Your task to perform on an android device: Do I have any events today? Image 0: 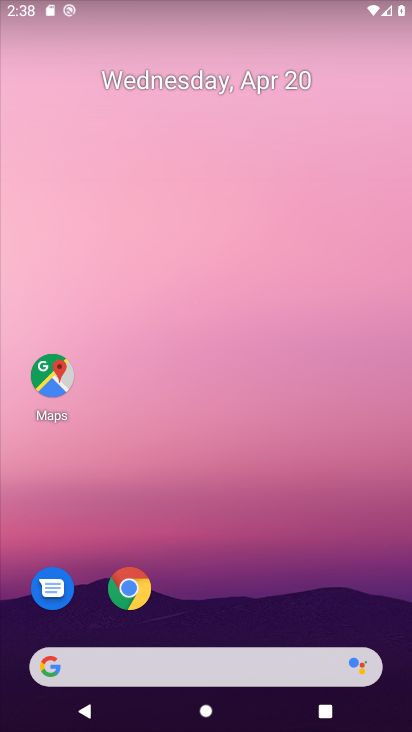
Step 0: drag from (342, 587) to (333, 198)
Your task to perform on an android device: Do I have any events today? Image 1: 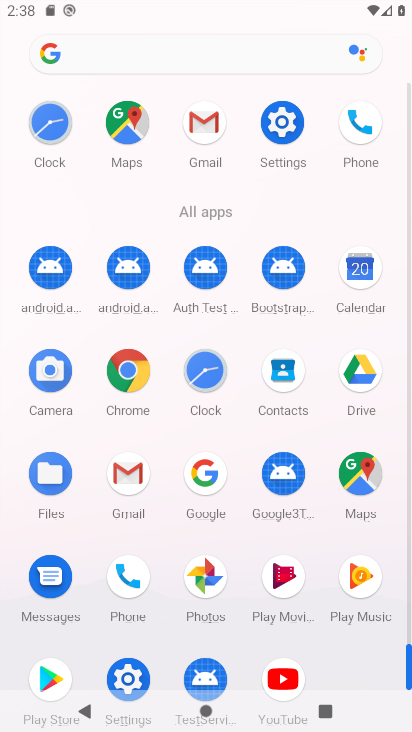
Step 1: click (362, 275)
Your task to perform on an android device: Do I have any events today? Image 2: 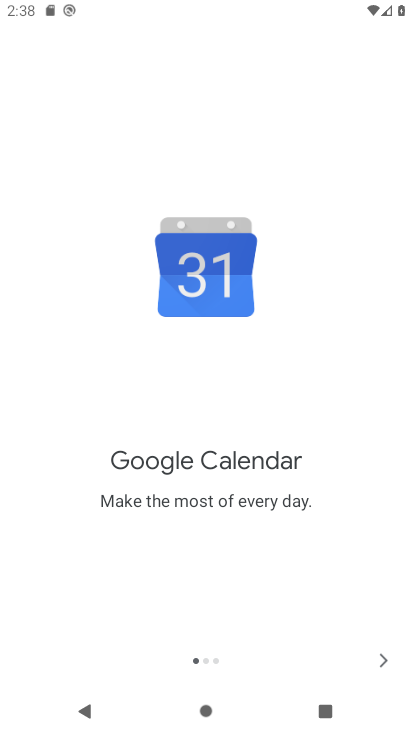
Step 2: click (377, 664)
Your task to perform on an android device: Do I have any events today? Image 3: 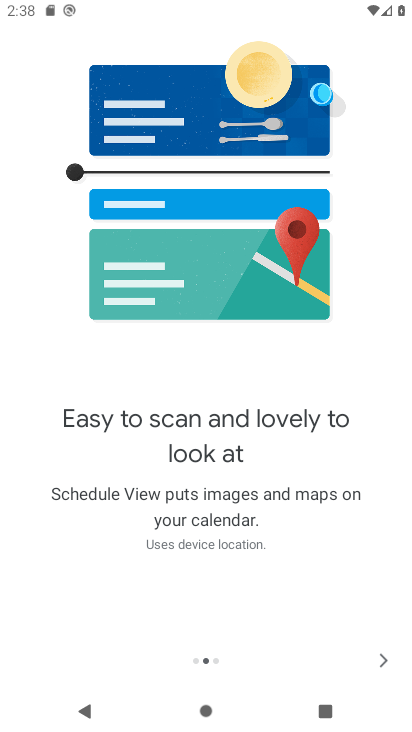
Step 3: click (377, 664)
Your task to perform on an android device: Do I have any events today? Image 4: 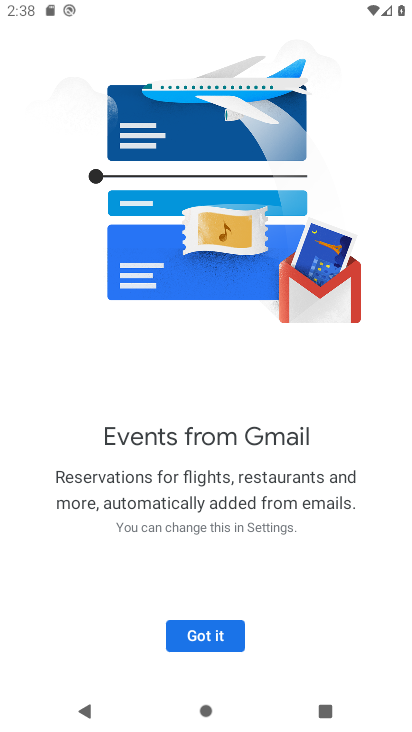
Step 4: click (222, 637)
Your task to perform on an android device: Do I have any events today? Image 5: 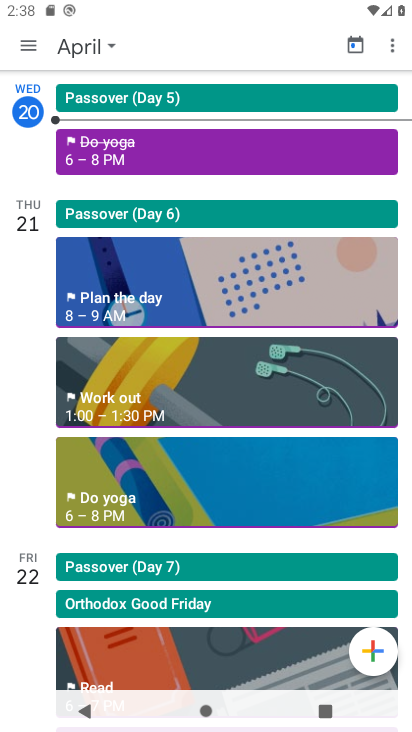
Step 5: click (114, 149)
Your task to perform on an android device: Do I have any events today? Image 6: 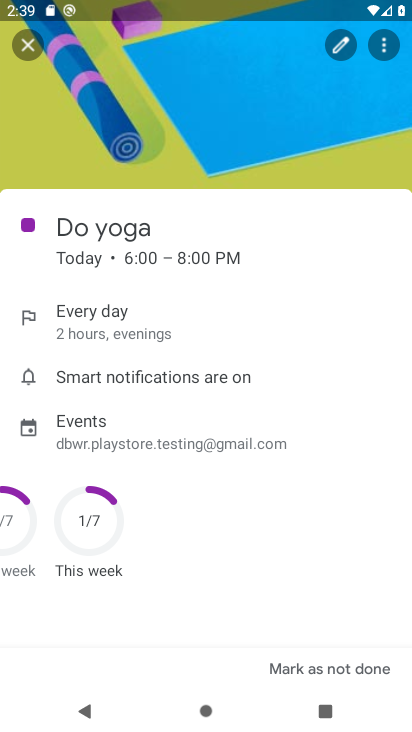
Step 6: task complete